Your task to perform on an android device: toggle priority inbox in the gmail app Image 0: 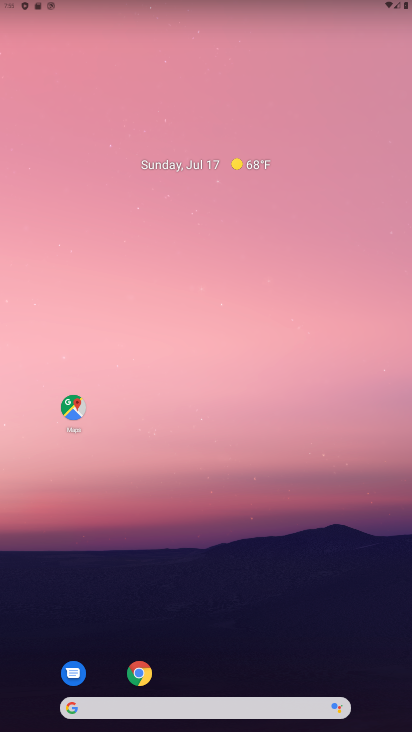
Step 0: drag from (325, 656) to (301, 22)
Your task to perform on an android device: toggle priority inbox in the gmail app Image 1: 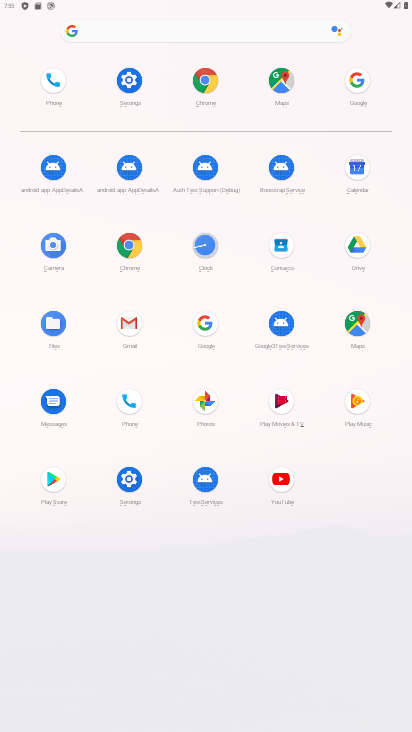
Step 1: click (136, 311)
Your task to perform on an android device: toggle priority inbox in the gmail app Image 2: 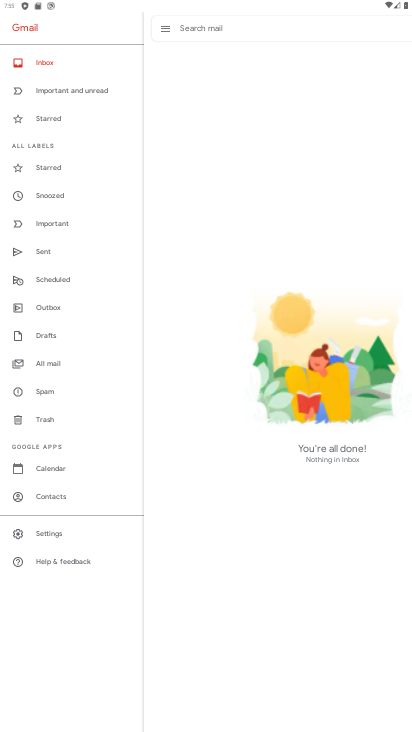
Step 2: click (57, 531)
Your task to perform on an android device: toggle priority inbox in the gmail app Image 3: 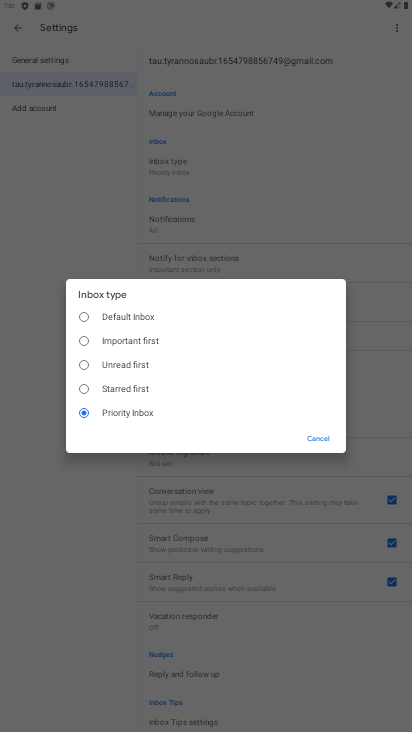
Step 3: click (104, 316)
Your task to perform on an android device: toggle priority inbox in the gmail app Image 4: 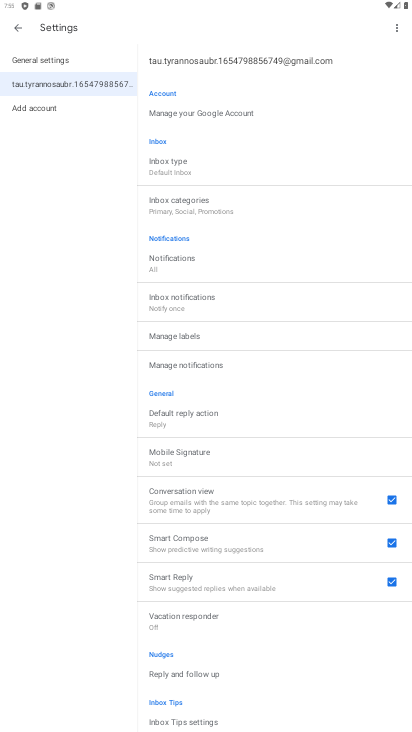
Step 4: task complete